Your task to perform on an android device: set the timer Image 0: 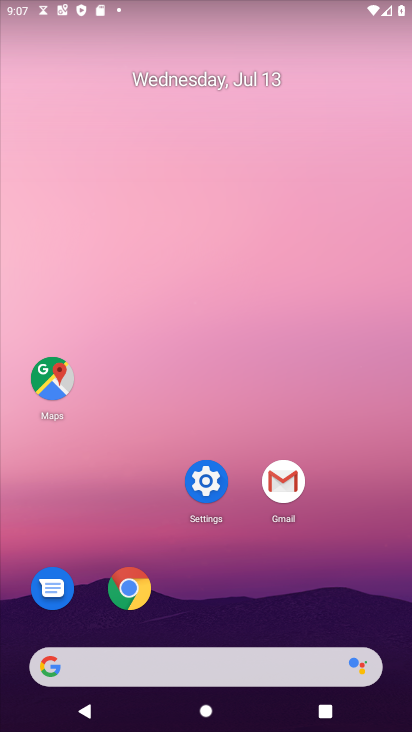
Step 0: drag from (387, 699) to (301, 94)
Your task to perform on an android device: set the timer Image 1: 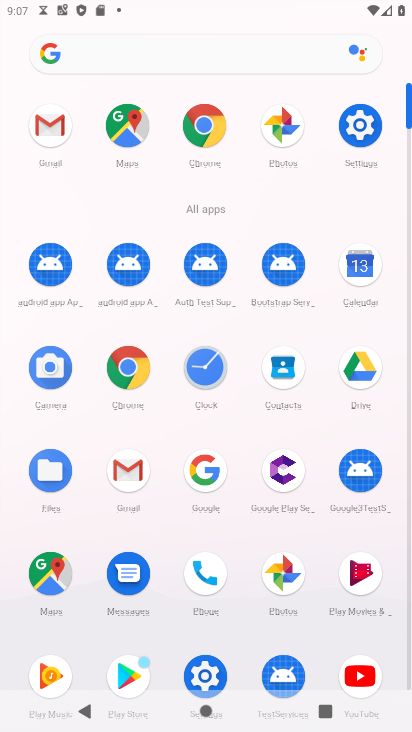
Step 1: click (208, 373)
Your task to perform on an android device: set the timer Image 2: 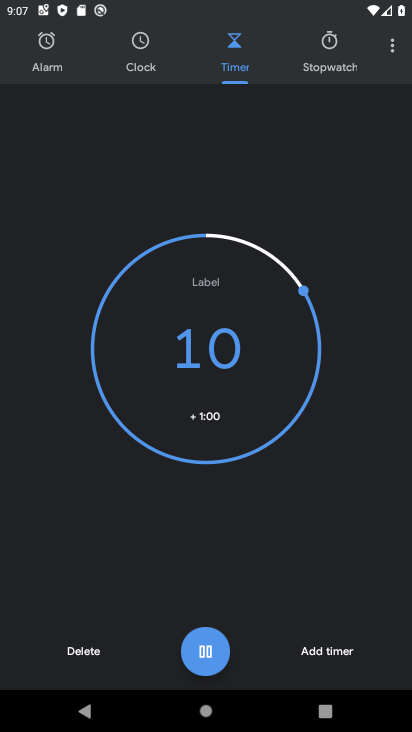
Step 2: click (238, 57)
Your task to perform on an android device: set the timer Image 3: 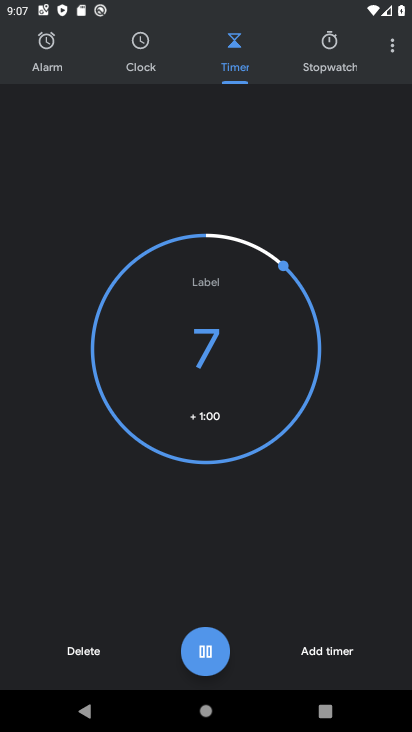
Step 3: click (85, 646)
Your task to perform on an android device: set the timer Image 4: 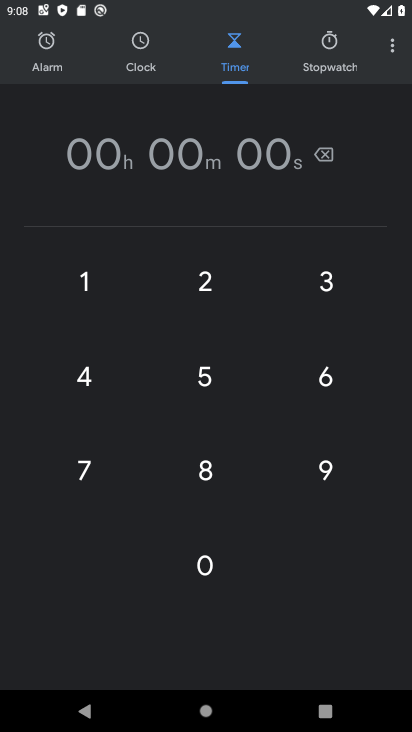
Step 4: click (321, 466)
Your task to perform on an android device: set the timer Image 5: 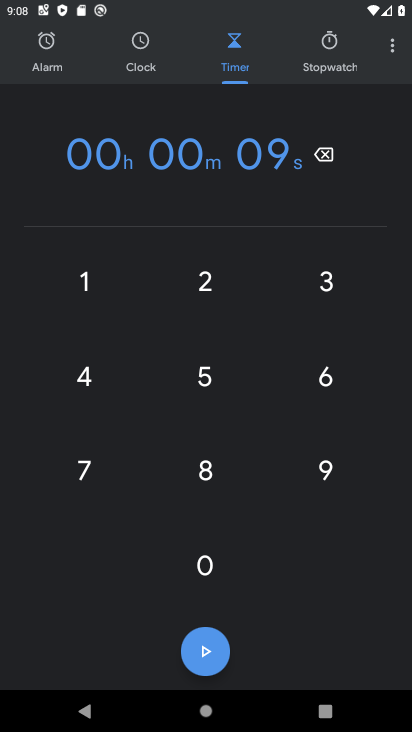
Step 5: click (321, 466)
Your task to perform on an android device: set the timer Image 6: 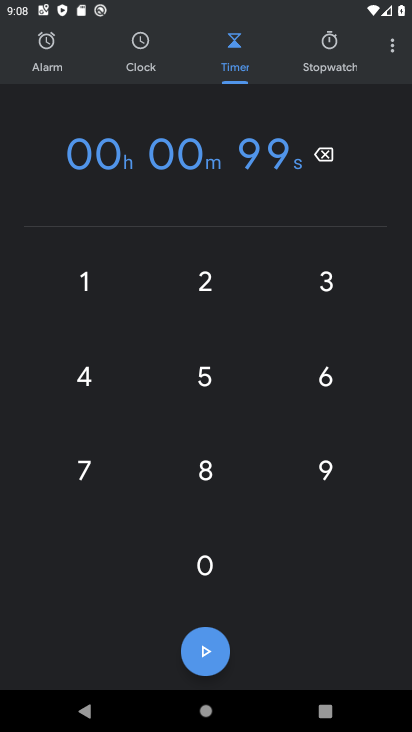
Step 6: click (200, 659)
Your task to perform on an android device: set the timer Image 7: 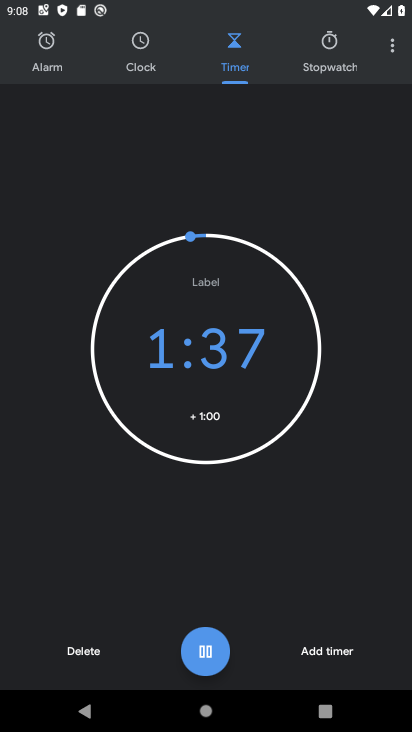
Step 7: task complete